Your task to perform on an android device: Show me the alarms in the clock app Image 0: 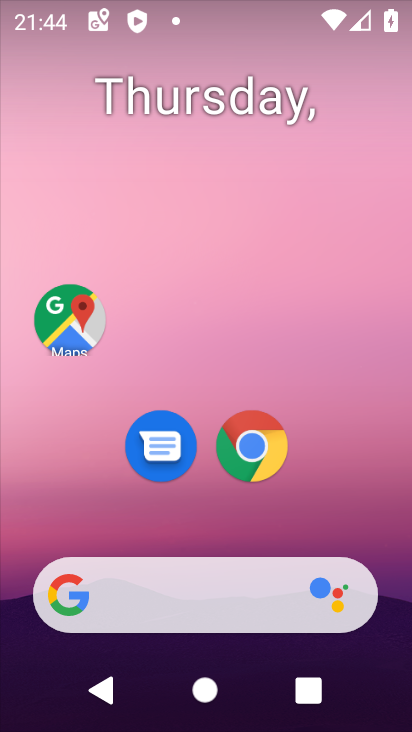
Step 0: press home button
Your task to perform on an android device: Show me the alarms in the clock app Image 1: 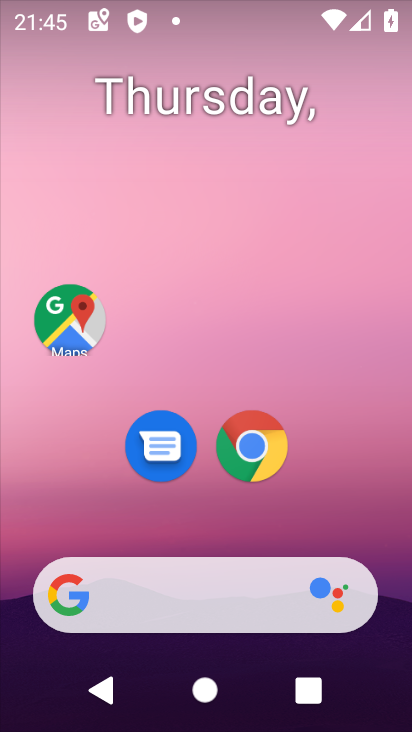
Step 1: click (354, 491)
Your task to perform on an android device: Show me the alarms in the clock app Image 2: 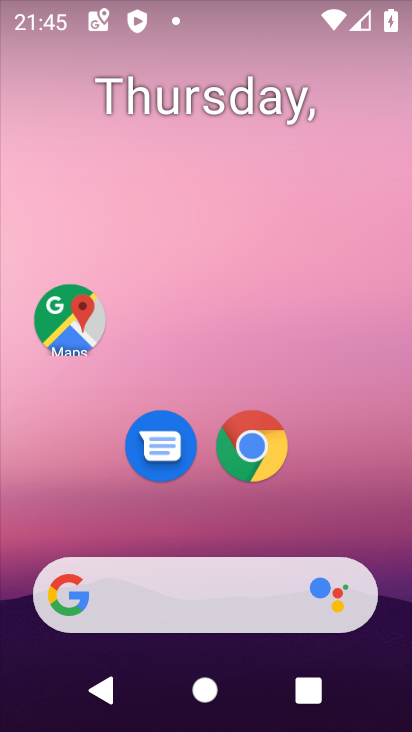
Step 2: drag from (354, 491) to (124, 70)
Your task to perform on an android device: Show me the alarms in the clock app Image 3: 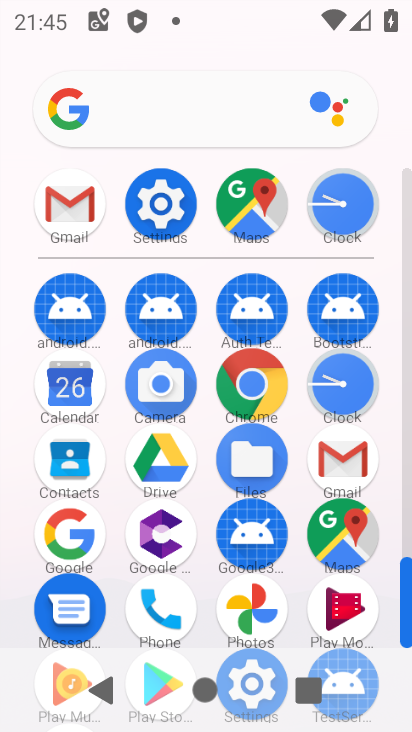
Step 3: click (403, 619)
Your task to perform on an android device: Show me the alarms in the clock app Image 4: 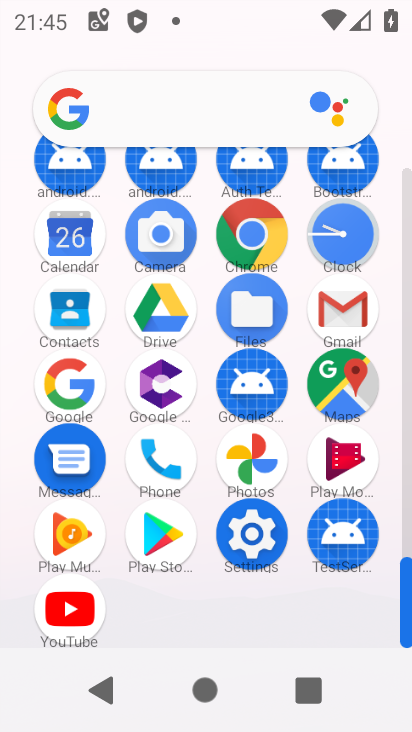
Step 4: click (345, 230)
Your task to perform on an android device: Show me the alarms in the clock app Image 5: 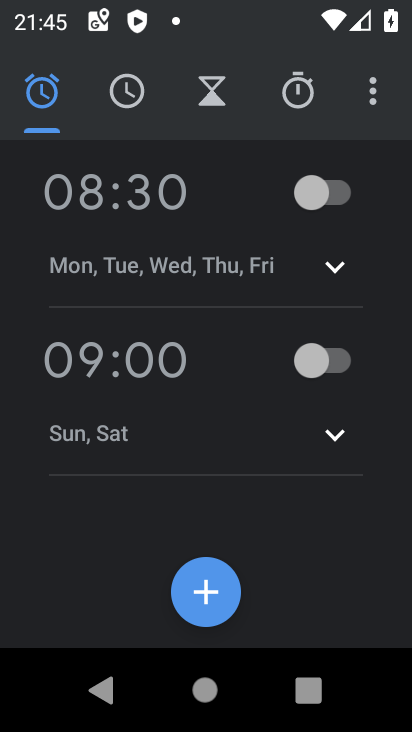
Step 5: task complete